Your task to perform on an android device: Open privacy settings Image 0: 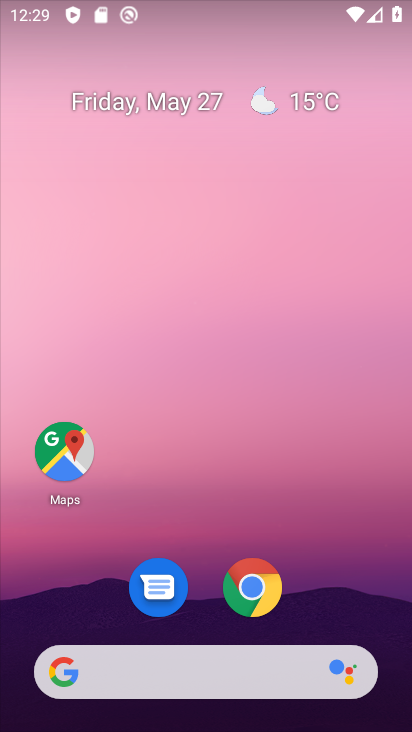
Step 0: drag from (291, 605) to (269, 57)
Your task to perform on an android device: Open privacy settings Image 1: 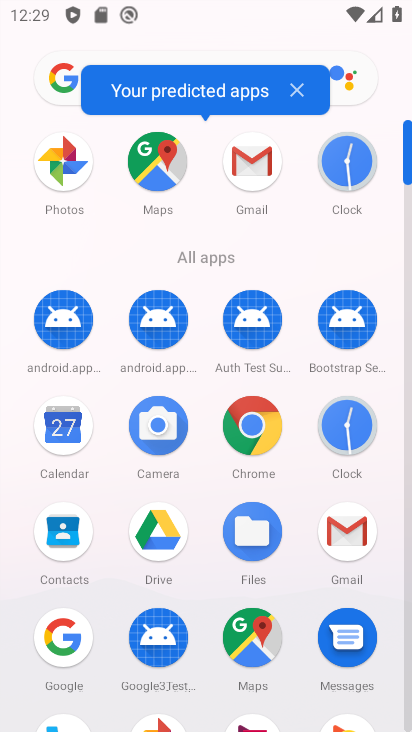
Step 1: drag from (302, 540) to (282, 80)
Your task to perform on an android device: Open privacy settings Image 2: 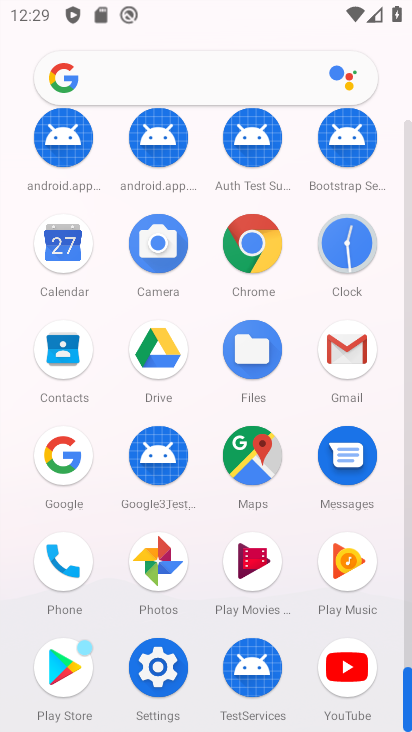
Step 2: click (157, 661)
Your task to perform on an android device: Open privacy settings Image 3: 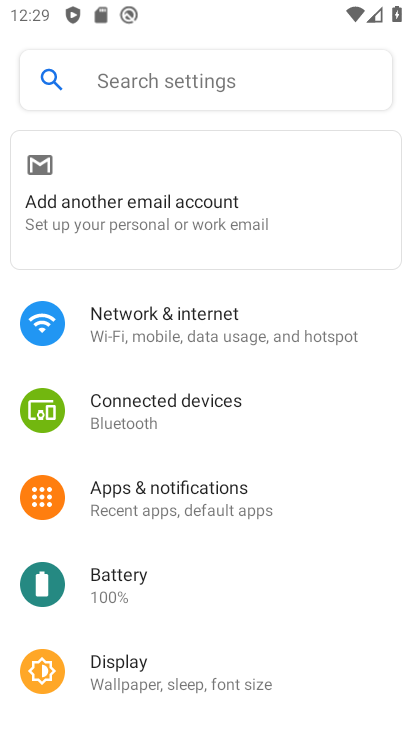
Step 3: drag from (165, 604) to (192, 71)
Your task to perform on an android device: Open privacy settings Image 4: 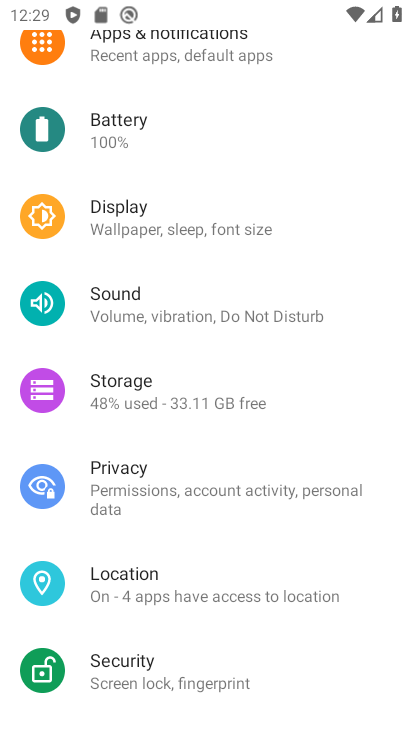
Step 4: click (218, 499)
Your task to perform on an android device: Open privacy settings Image 5: 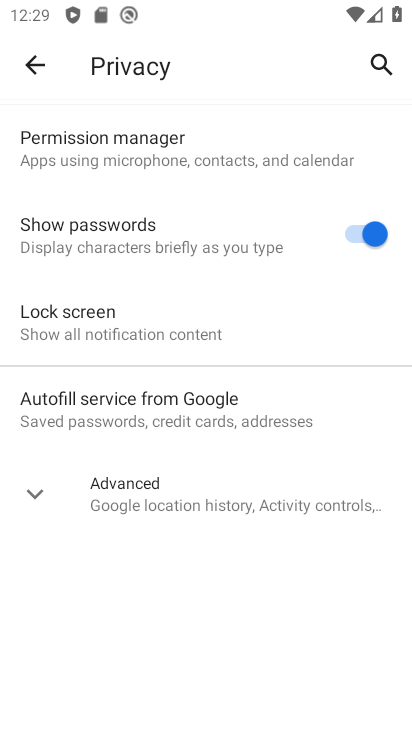
Step 5: task complete